Your task to perform on an android device: Go to Reddit.com Image 0: 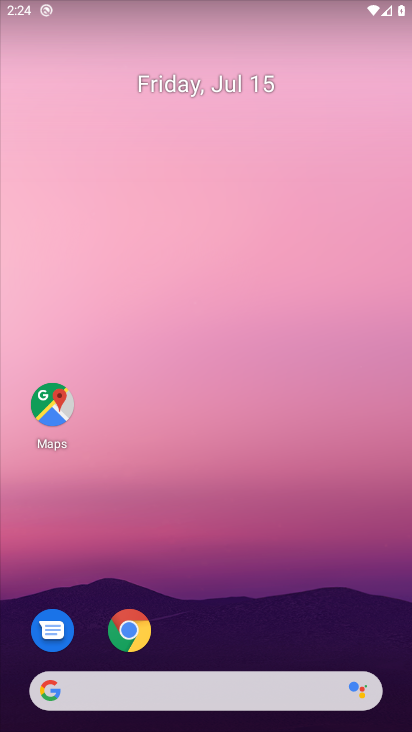
Step 0: click (54, 684)
Your task to perform on an android device: Go to Reddit.com Image 1: 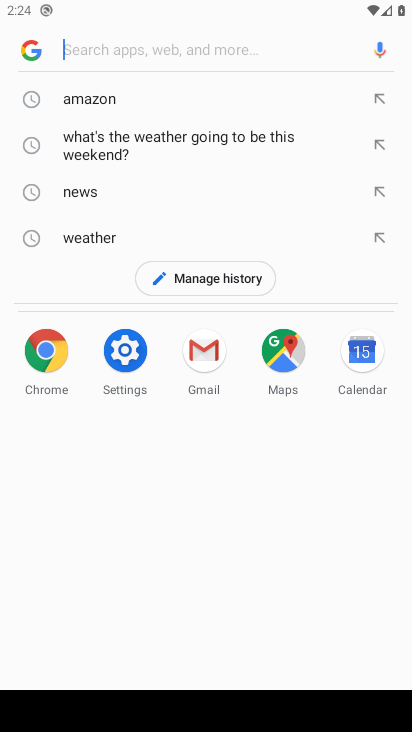
Step 1: type "Reddit.com"
Your task to perform on an android device: Go to Reddit.com Image 2: 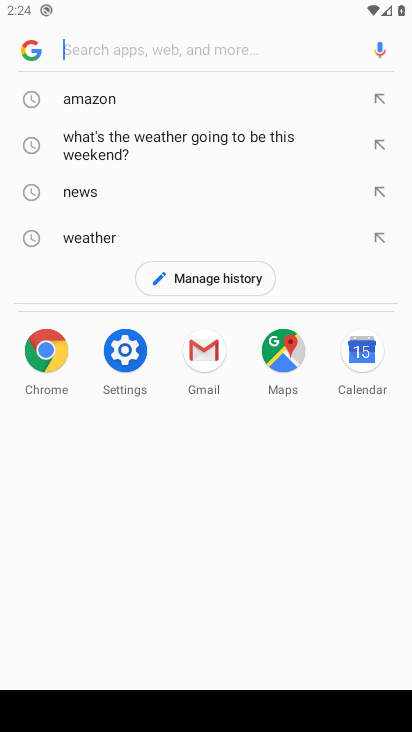
Step 2: click (160, 53)
Your task to perform on an android device: Go to Reddit.com Image 3: 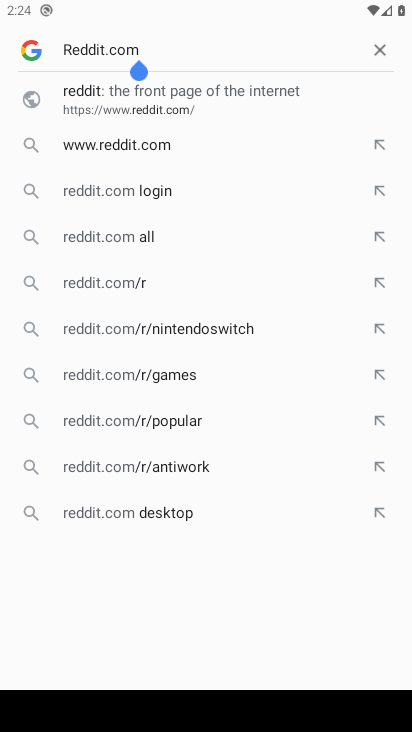
Step 3: press enter
Your task to perform on an android device: Go to Reddit.com Image 4: 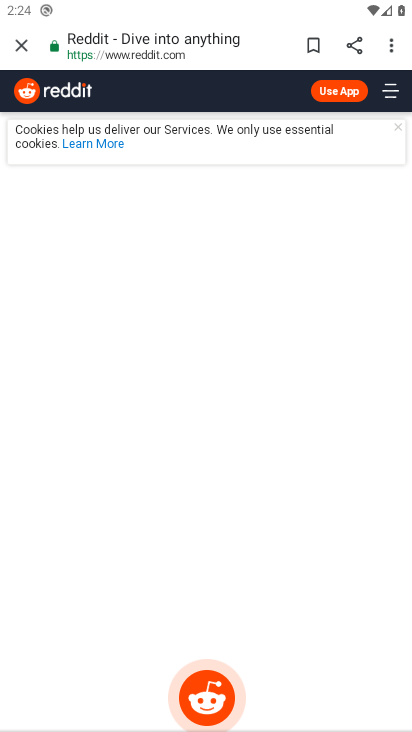
Step 4: task complete